Your task to perform on an android device: What's the weather going to be tomorrow? Image 0: 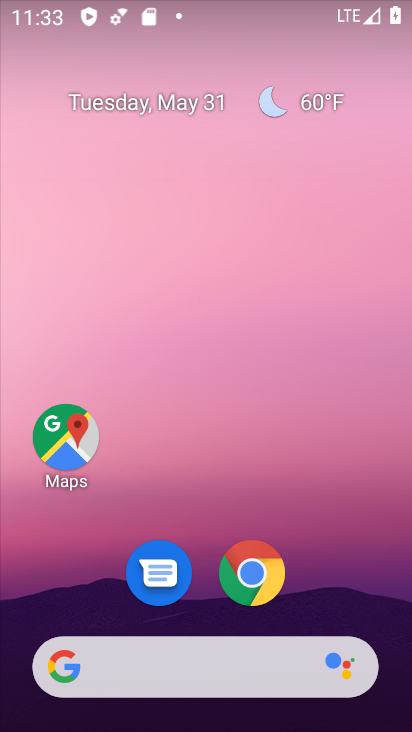
Step 0: drag from (207, 617) to (224, 148)
Your task to perform on an android device: What's the weather going to be tomorrow? Image 1: 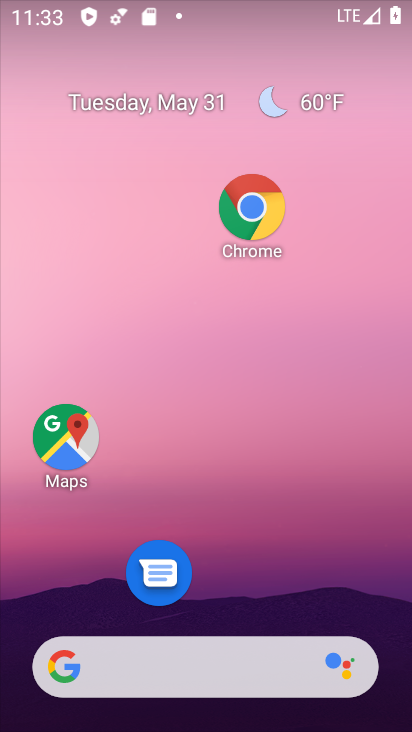
Step 1: drag from (219, 618) to (232, 14)
Your task to perform on an android device: What's the weather going to be tomorrow? Image 2: 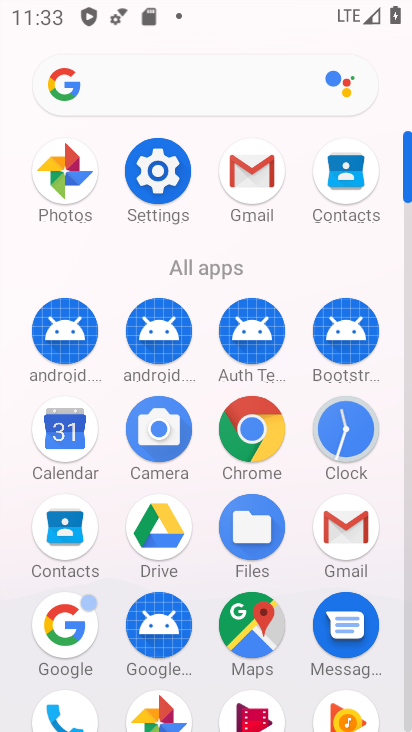
Step 2: click (80, 603)
Your task to perform on an android device: What's the weather going to be tomorrow? Image 3: 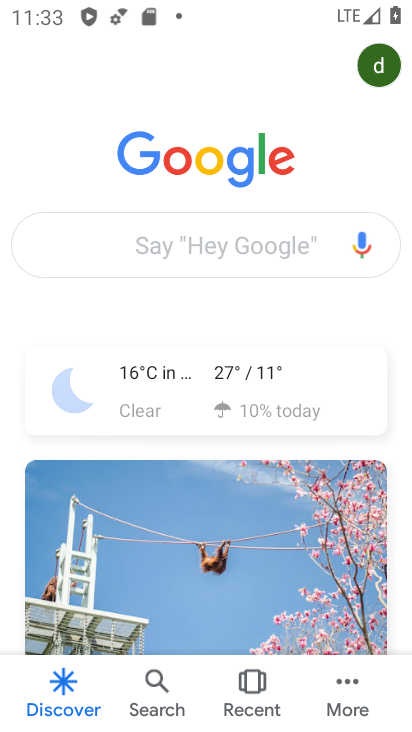
Step 3: click (186, 239)
Your task to perform on an android device: What's the weather going to be tomorrow? Image 4: 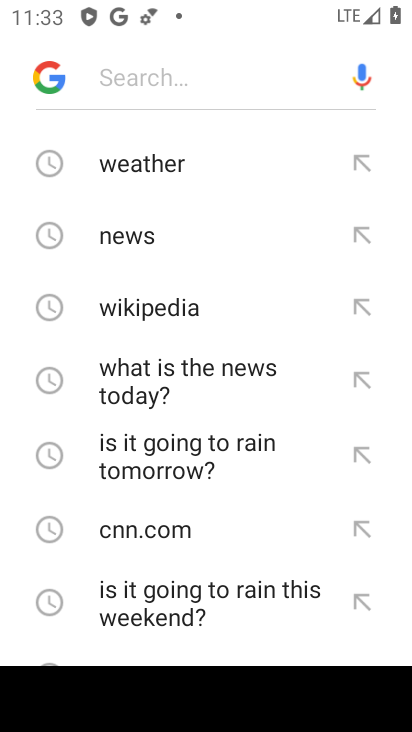
Step 4: click (137, 143)
Your task to perform on an android device: What's the weather going to be tomorrow? Image 5: 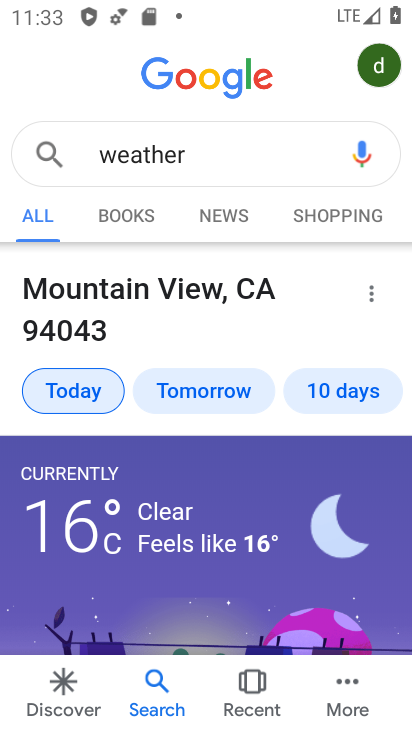
Step 5: click (179, 403)
Your task to perform on an android device: What's the weather going to be tomorrow? Image 6: 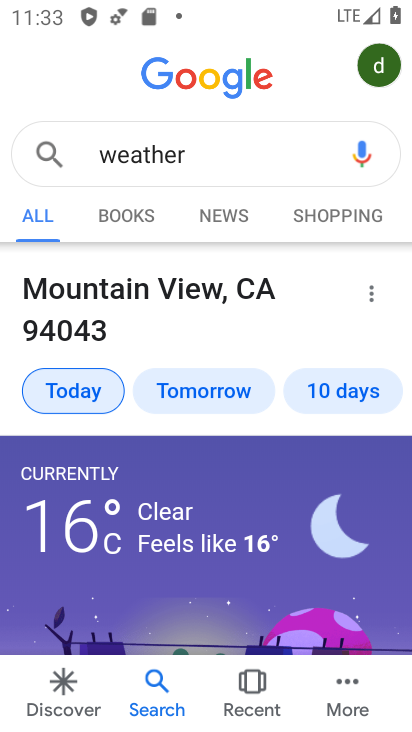
Step 6: click (198, 393)
Your task to perform on an android device: What's the weather going to be tomorrow? Image 7: 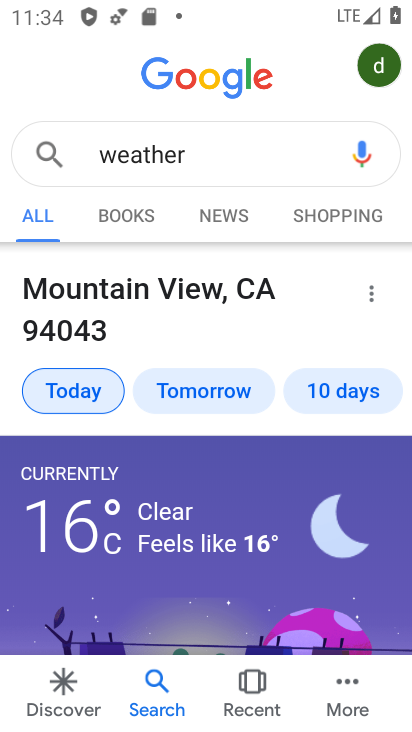
Step 7: click (223, 390)
Your task to perform on an android device: What's the weather going to be tomorrow? Image 8: 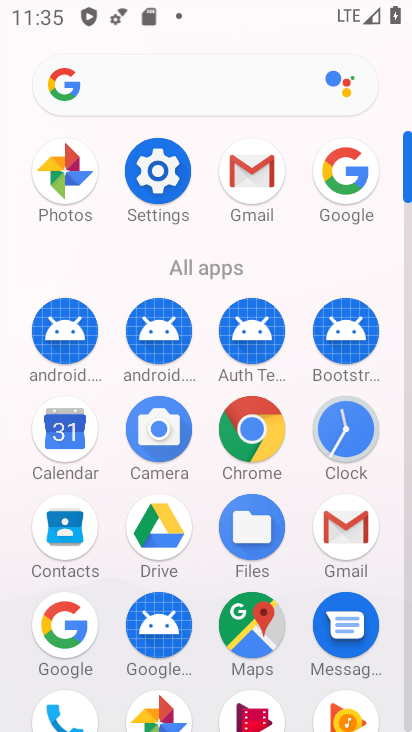
Step 8: click (53, 638)
Your task to perform on an android device: What's the weather going to be tomorrow? Image 9: 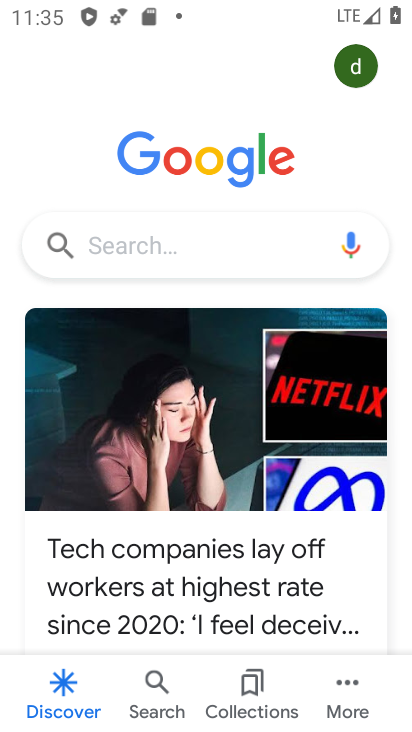
Step 9: click (151, 246)
Your task to perform on an android device: What's the weather going to be tomorrow? Image 10: 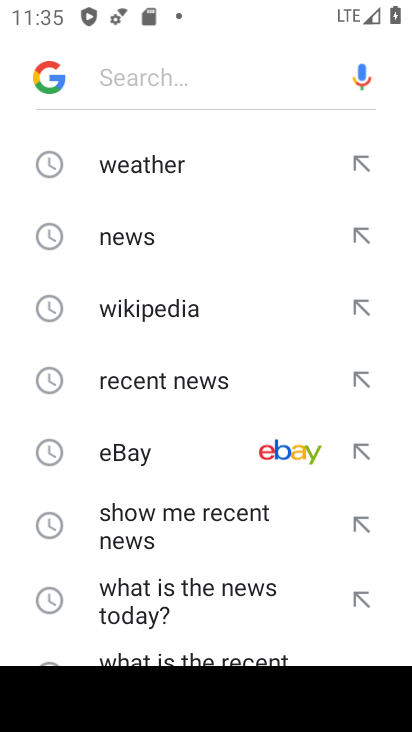
Step 10: click (167, 161)
Your task to perform on an android device: What's the weather going to be tomorrow? Image 11: 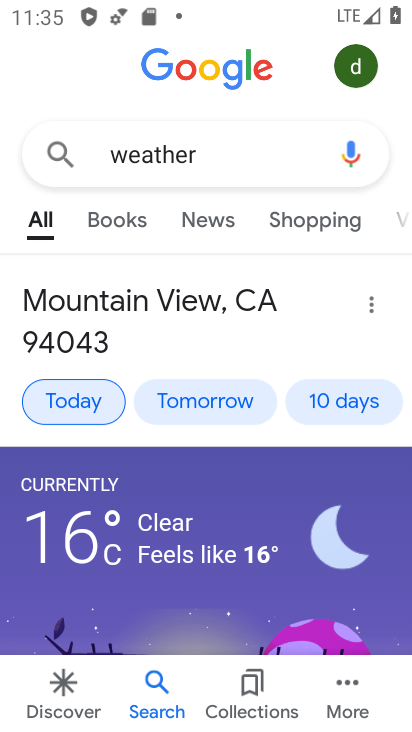
Step 11: click (202, 395)
Your task to perform on an android device: What's the weather going to be tomorrow? Image 12: 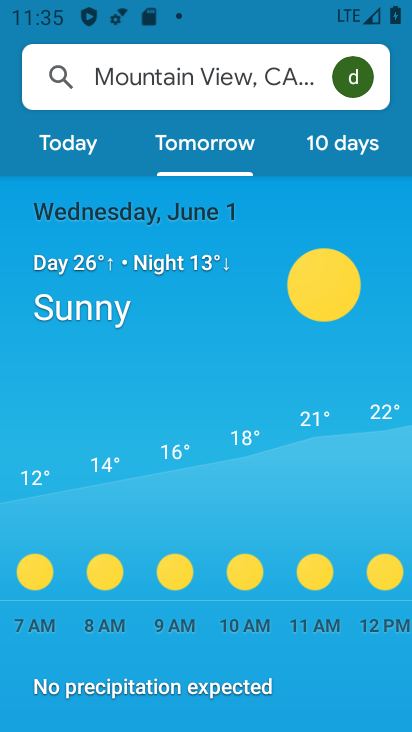
Step 12: task complete